Your task to perform on an android device: Open the Play Movies app and select the watchlist tab. Image 0: 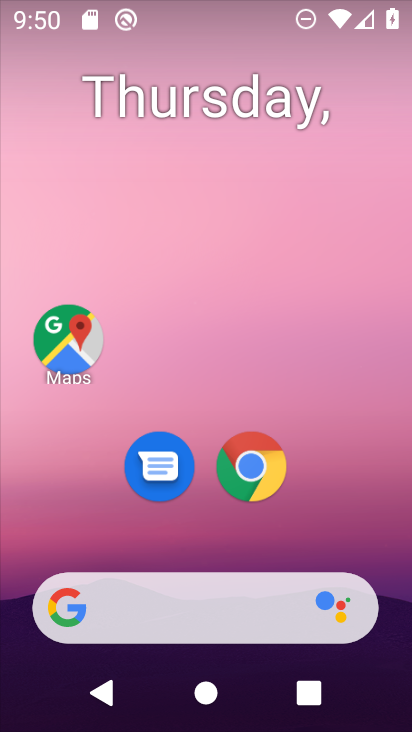
Step 0: drag from (316, 612) to (330, 28)
Your task to perform on an android device: Open the Play Movies app and select the watchlist tab. Image 1: 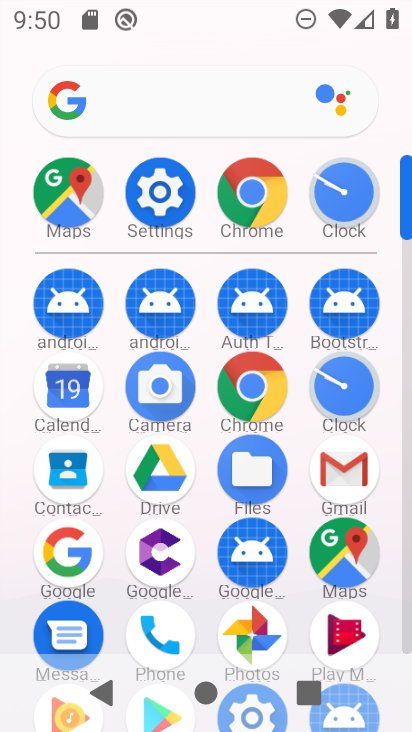
Step 1: drag from (306, 604) to (306, 379)
Your task to perform on an android device: Open the Play Movies app and select the watchlist tab. Image 2: 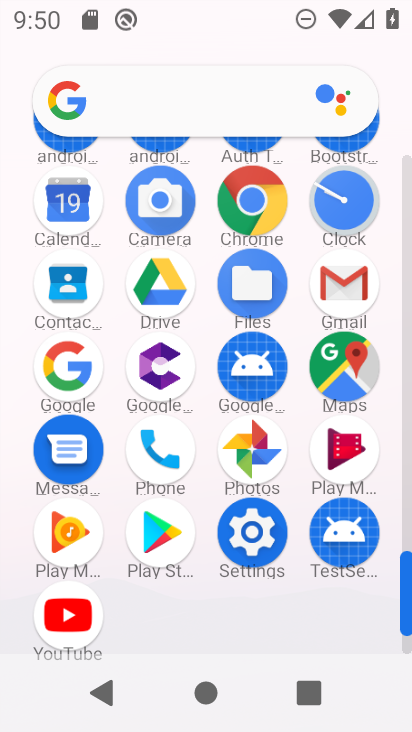
Step 2: click (343, 447)
Your task to perform on an android device: Open the Play Movies app and select the watchlist tab. Image 3: 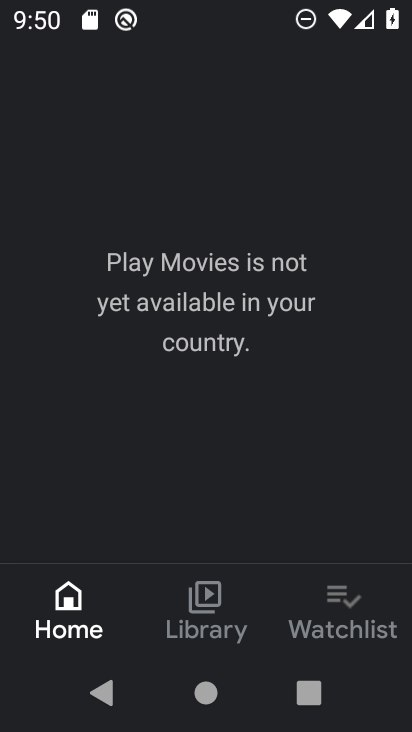
Step 3: click (302, 618)
Your task to perform on an android device: Open the Play Movies app and select the watchlist tab. Image 4: 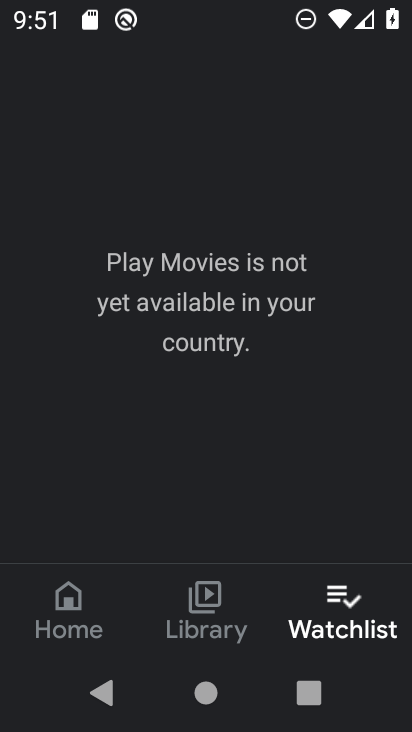
Step 4: task complete